Your task to perform on an android device: What's the weather going to be this weekend? Image 0: 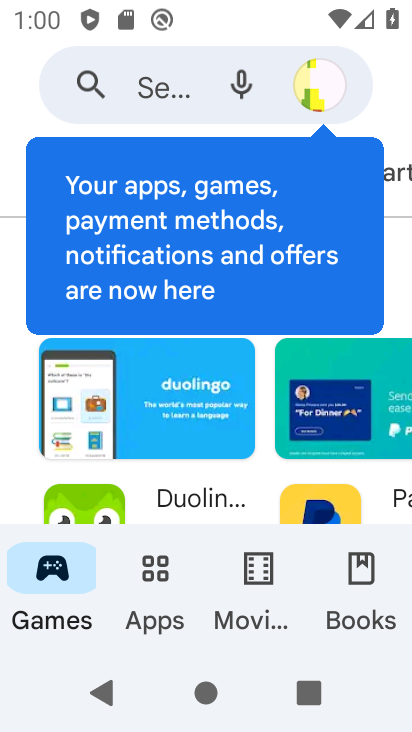
Step 0: press back button
Your task to perform on an android device: What's the weather going to be this weekend? Image 1: 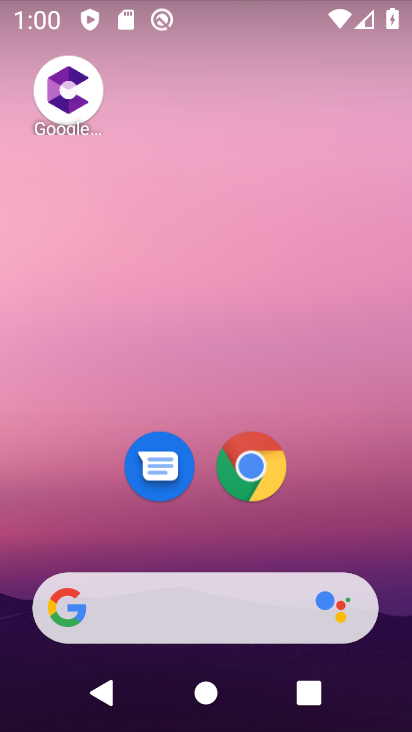
Step 1: drag from (208, 526) to (201, 25)
Your task to perform on an android device: What's the weather going to be this weekend? Image 2: 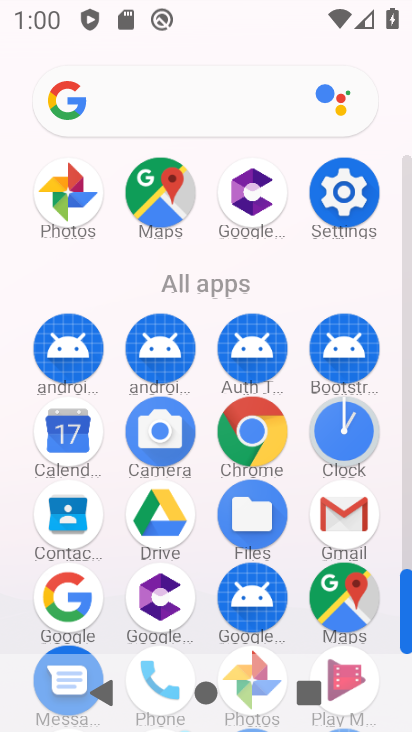
Step 2: click (156, 91)
Your task to perform on an android device: What's the weather going to be this weekend? Image 3: 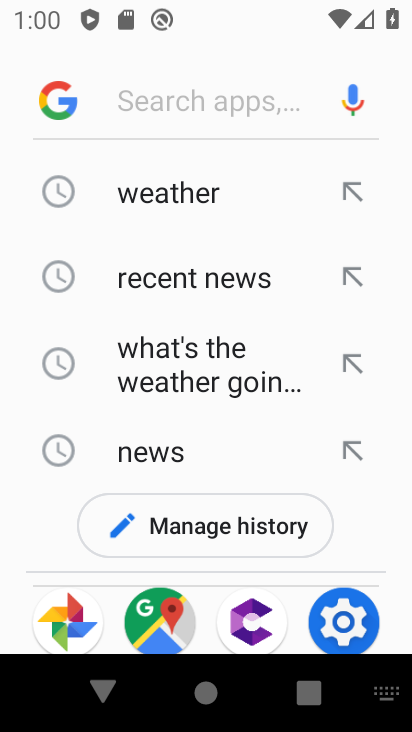
Step 3: type "iswhat's the weather going to be this weekend"
Your task to perform on an android device: What's the weather going to be this weekend? Image 4: 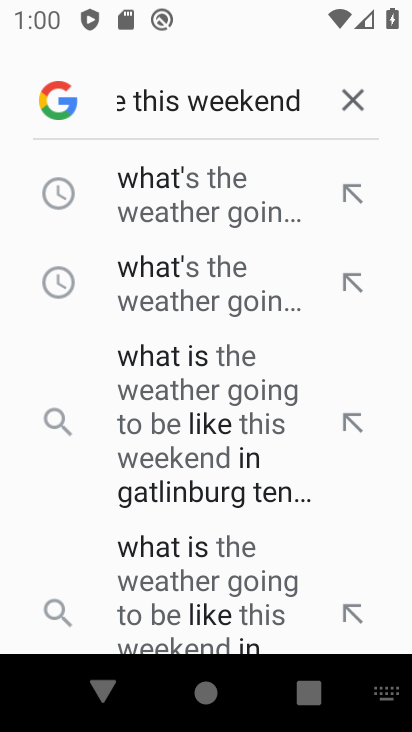
Step 4: click (198, 208)
Your task to perform on an android device: What's the weather going to be this weekend? Image 5: 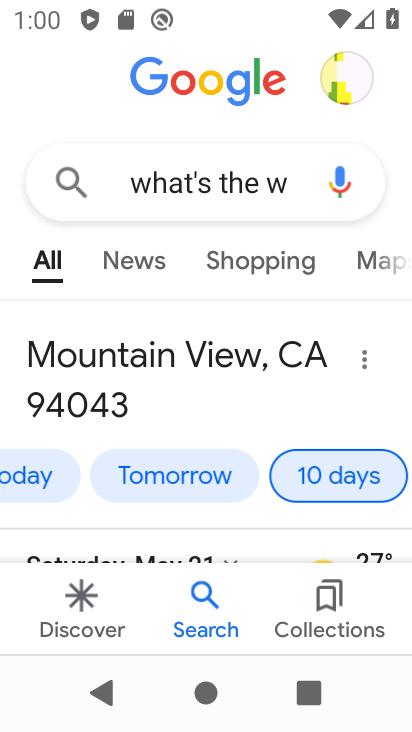
Step 5: task complete